Your task to perform on an android device: stop showing notifications on the lock screen Image 0: 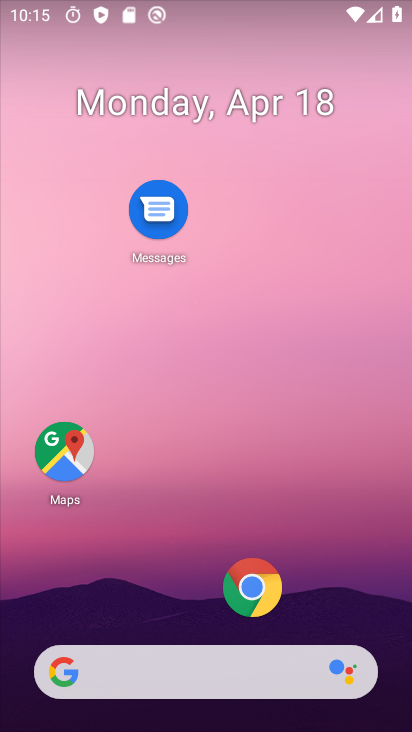
Step 0: drag from (176, 539) to (373, 38)
Your task to perform on an android device: stop showing notifications on the lock screen Image 1: 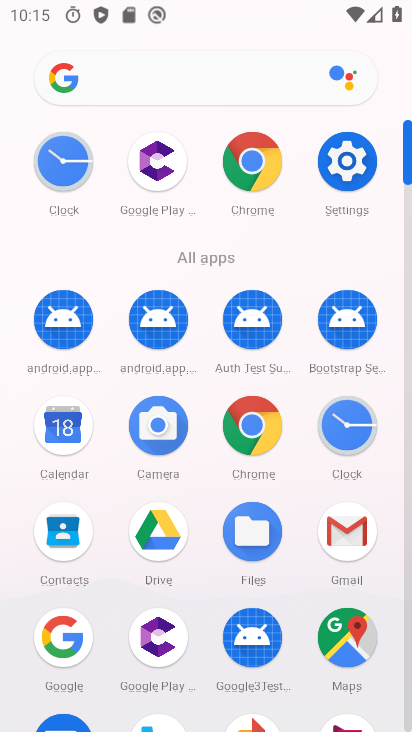
Step 1: click (351, 149)
Your task to perform on an android device: stop showing notifications on the lock screen Image 2: 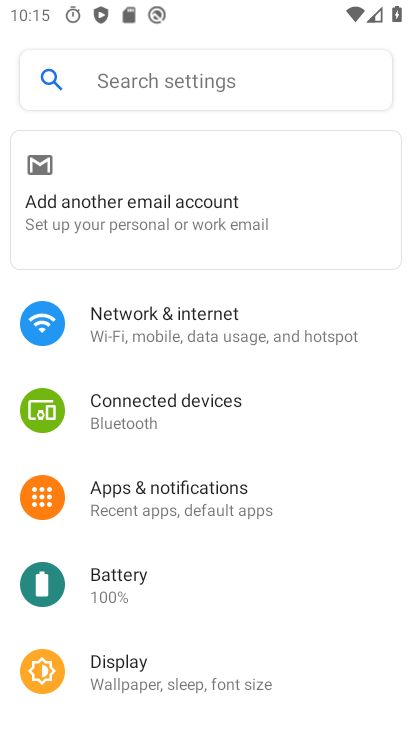
Step 2: click (258, 502)
Your task to perform on an android device: stop showing notifications on the lock screen Image 3: 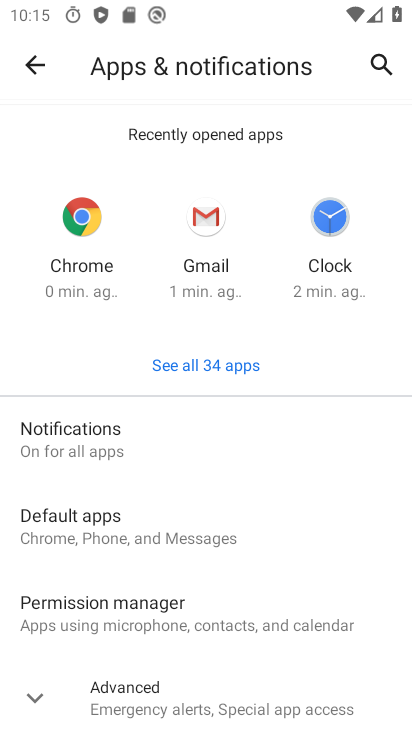
Step 3: click (22, 446)
Your task to perform on an android device: stop showing notifications on the lock screen Image 4: 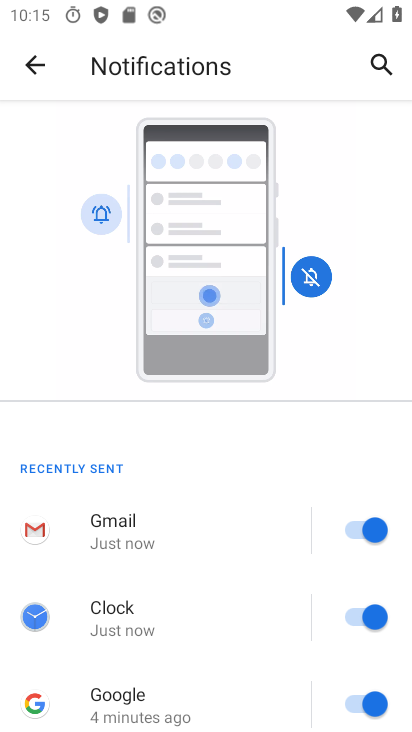
Step 4: drag from (177, 683) to (228, 179)
Your task to perform on an android device: stop showing notifications on the lock screen Image 5: 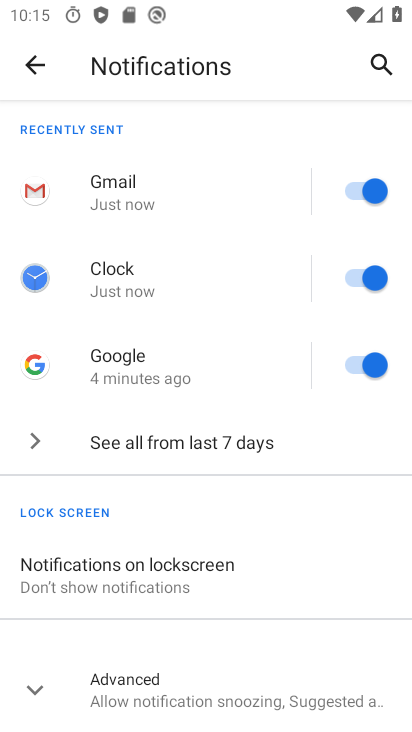
Step 5: click (178, 603)
Your task to perform on an android device: stop showing notifications on the lock screen Image 6: 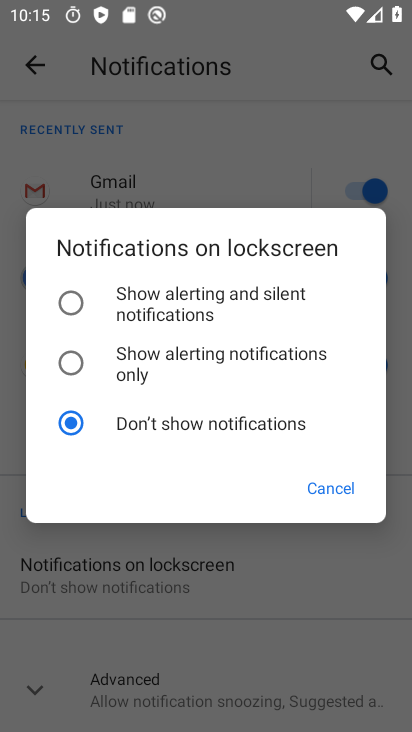
Step 6: task complete